Your task to perform on an android device: Open Youtube and go to the subscriptions tab Image 0: 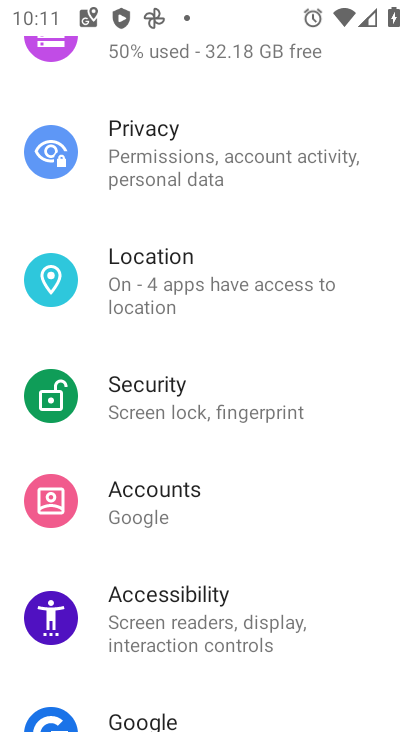
Step 0: press home button
Your task to perform on an android device: Open Youtube and go to the subscriptions tab Image 1: 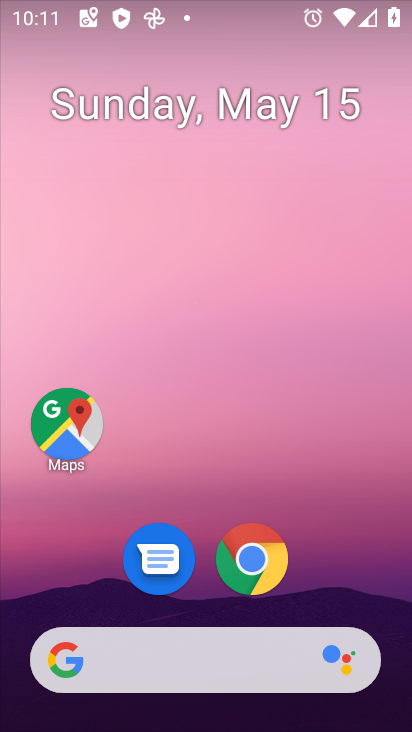
Step 1: drag from (367, 590) to (375, 39)
Your task to perform on an android device: Open Youtube and go to the subscriptions tab Image 2: 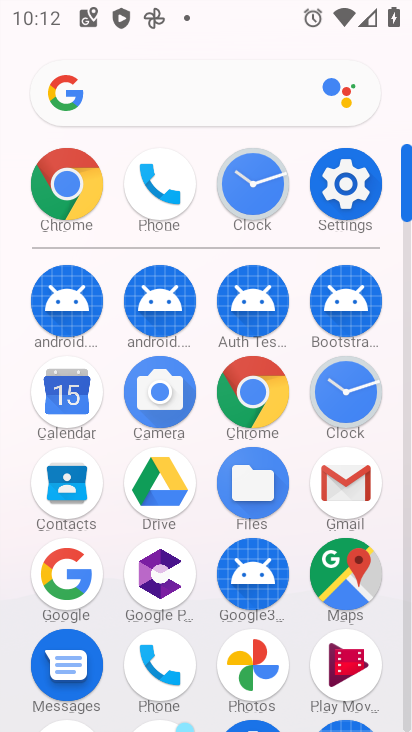
Step 2: click (405, 720)
Your task to perform on an android device: Open Youtube and go to the subscriptions tab Image 3: 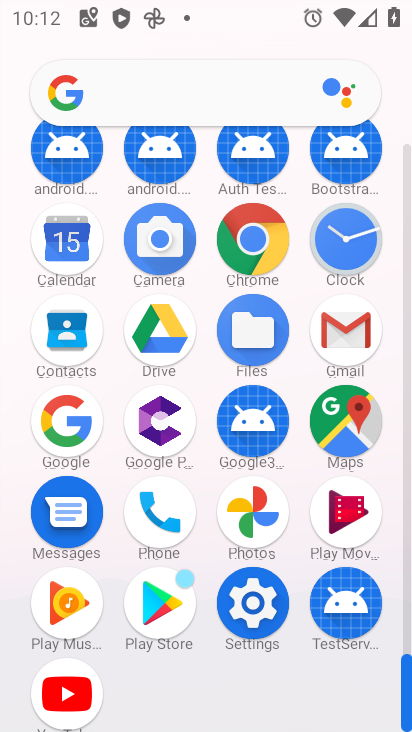
Step 3: click (57, 703)
Your task to perform on an android device: Open Youtube and go to the subscriptions tab Image 4: 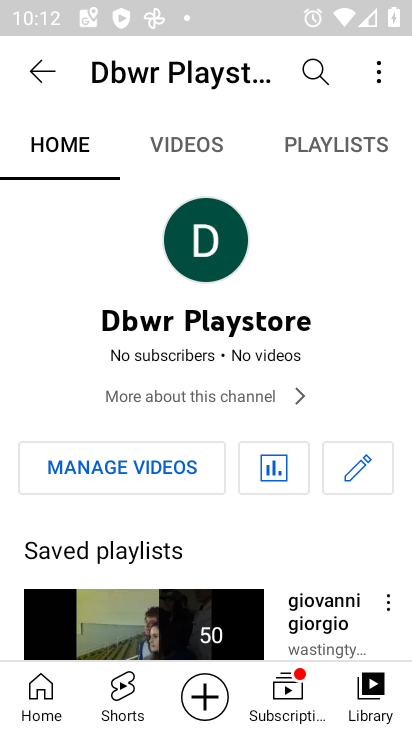
Step 4: click (274, 705)
Your task to perform on an android device: Open Youtube and go to the subscriptions tab Image 5: 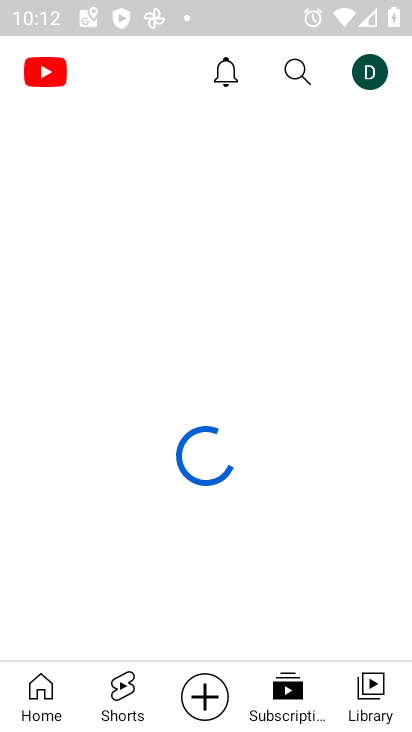
Step 5: task complete